Your task to perform on an android device: Go to calendar. Show me events next week Image 0: 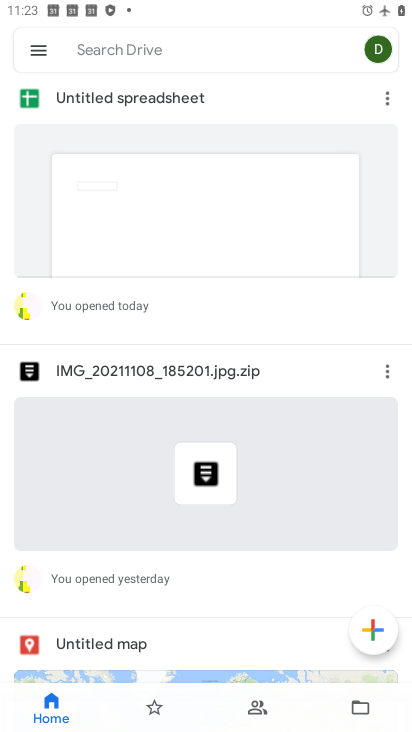
Step 0: press home button
Your task to perform on an android device: Go to calendar. Show me events next week Image 1: 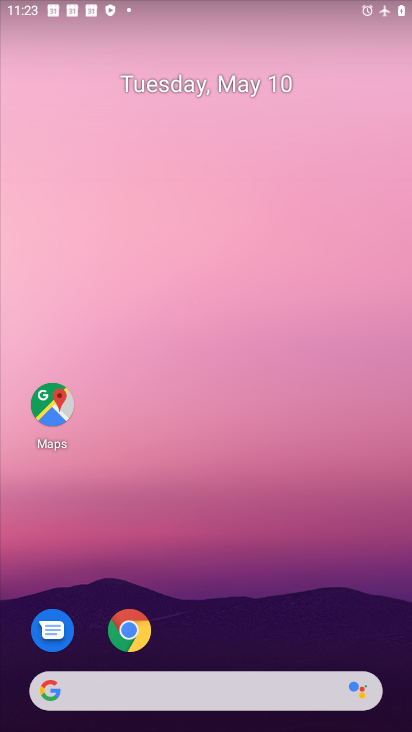
Step 1: drag from (176, 725) to (187, 20)
Your task to perform on an android device: Go to calendar. Show me events next week Image 2: 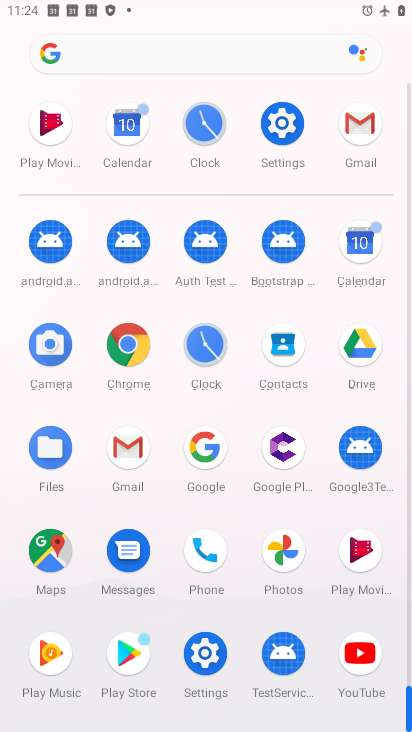
Step 2: click (377, 247)
Your task to perform on an android device: Go to calendar. Show me events next week Image 3: 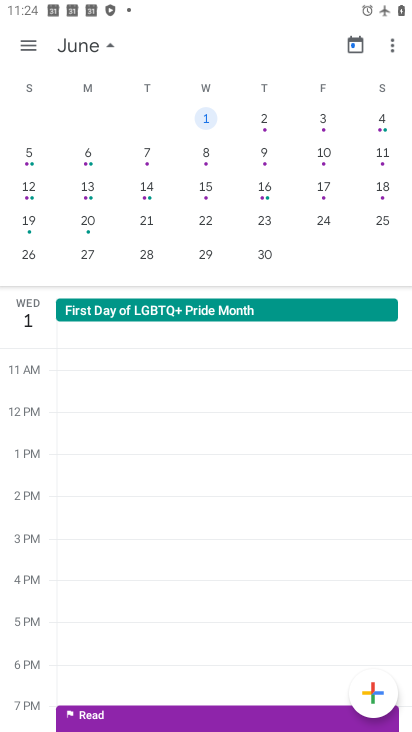
Step 3: drag from (82, 166) to (402, 263)
Your task to perform on an android device: Go to calendar. Show me events next week Image 4: 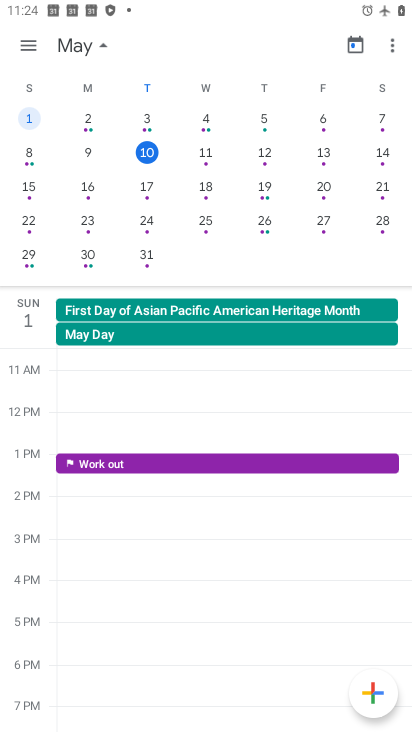
Step 4: click (27, 189)
Your task to perform on an android device: Go to calendar. Show me events next week Image 5: 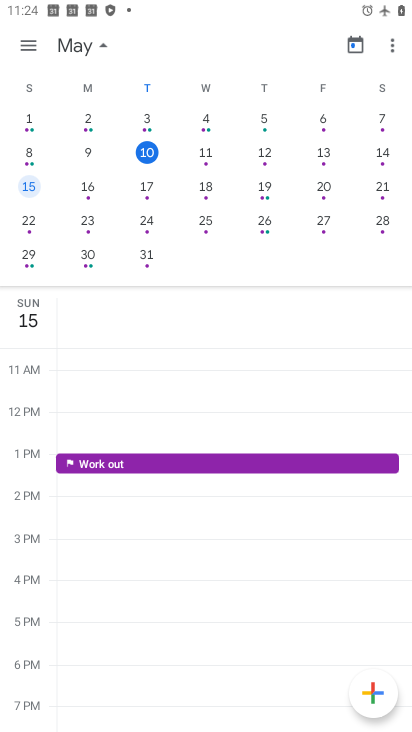
Step 5: task complete